Your task to perform on an android device: change text size in settings app Image 0: 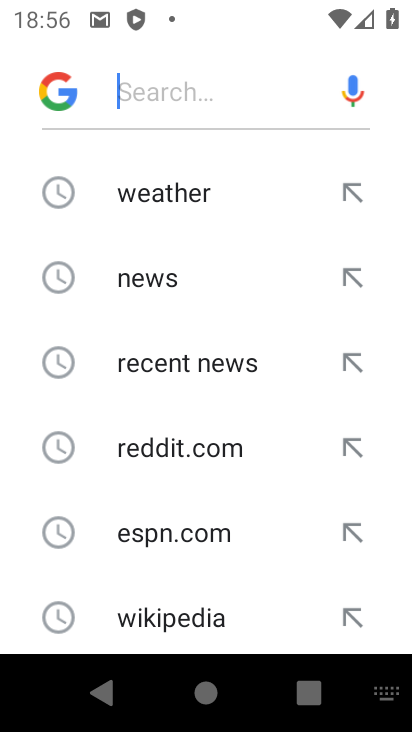
Step 0: press home button
Your task to perform on an android device: change text size in settings app Image 1: 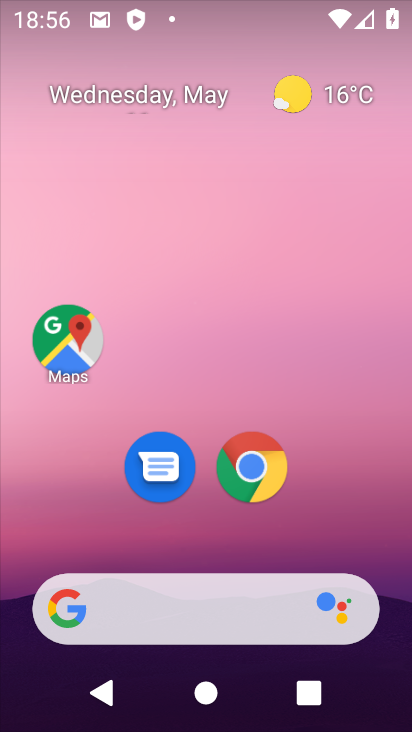
Step 1: drag from (308, 520) to (168, 49)
Your task to perform on an android device: change text size in settings app Image 2: 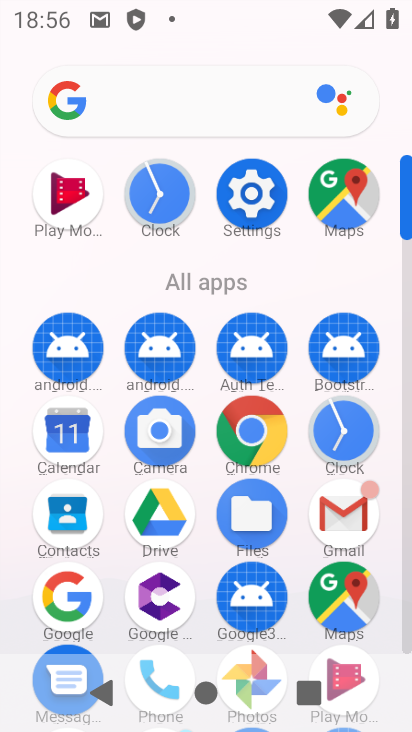
Step 2: click (252, 193)
Your task to perform on an android device: change text size in settings app Image 3: 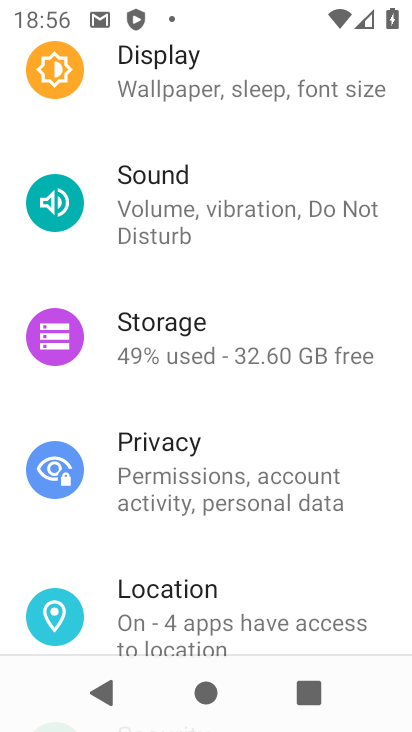
Step 3: click (159, 74)
Your task to perform on an android device: change text size in settings app Image 4: 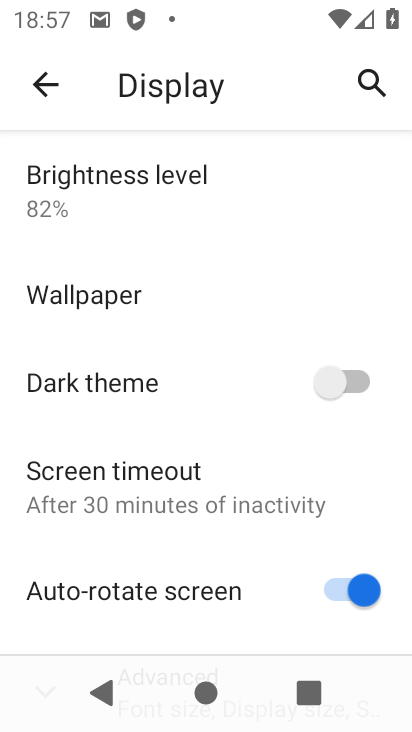
Step 4: drag from (165, 525) to (126, 321)
Your task to perform on an android device: change text size in settings app Image 5: 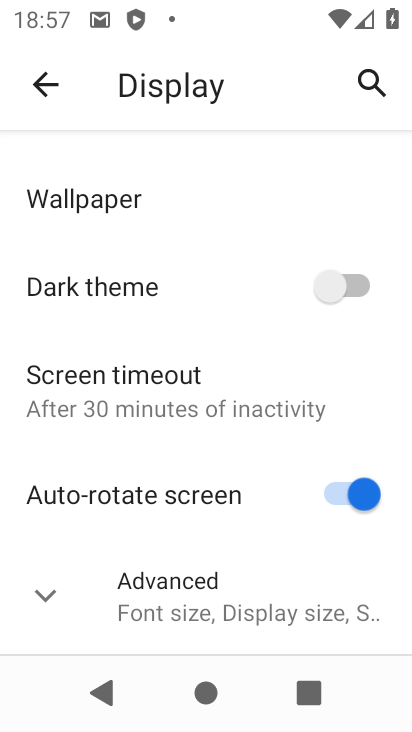
Step 5: click (158, 604)
Your task to perform on an android device: change text size in settings app Image 6: 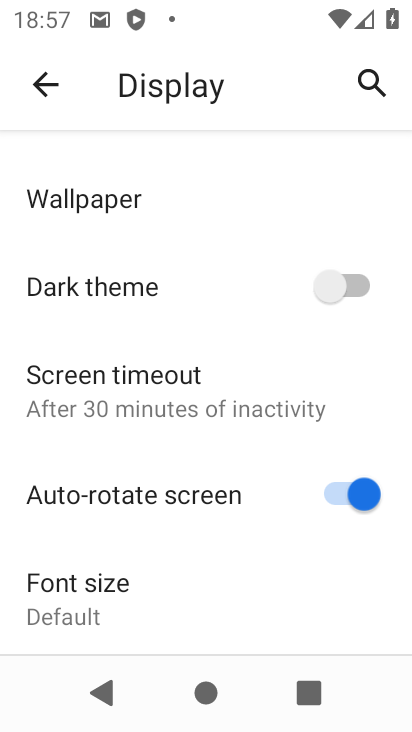
Step 6: drag from (152, 549) to (88, 161)
Your task to perform on an android device: change text size in settings app Image 7: 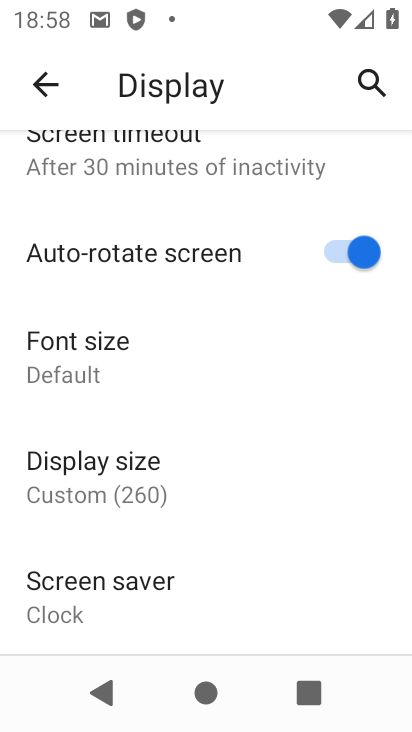
Step 7: click (64, 347)
Your task to perform on an android device: change text size in settings app Image 8: 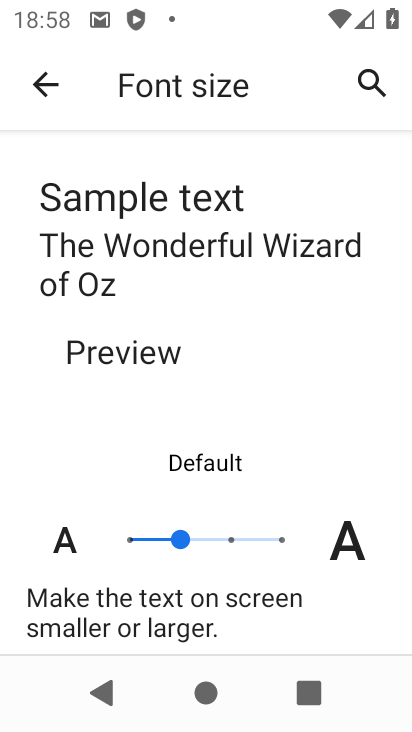
Step 8: click (203, 539)
Your task to perform on an android device: change text size in settings app Image 9: 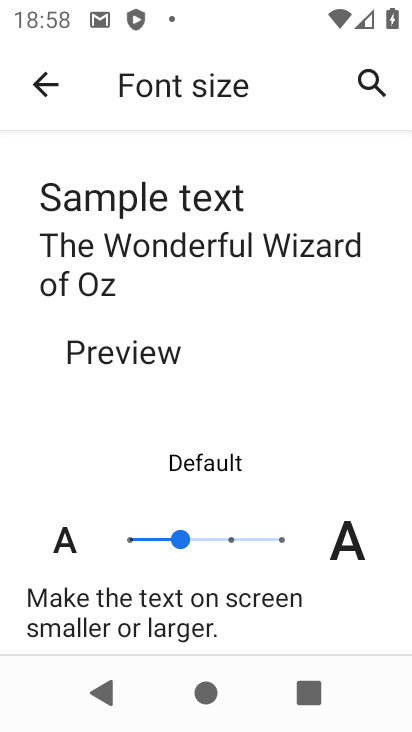
Step 9: click (220, 537)
Your task to perform on an android device: change text size in settings app Image 10: 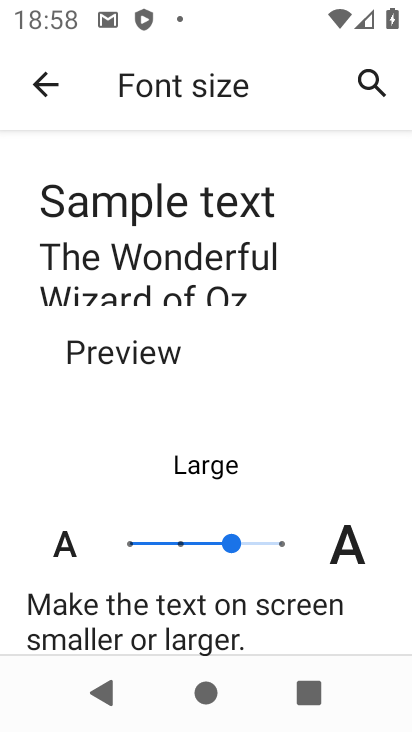
Step 10: task complete